Your task to perform on an android device: move a message to another label in the gmail app Image 0: 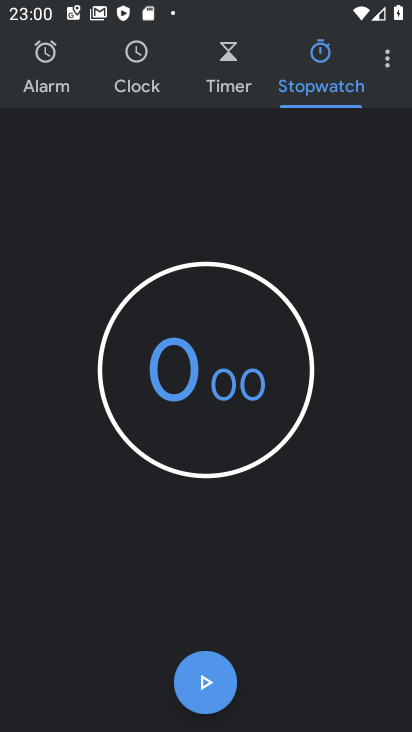
Step 0: press home button
Your task to perform on an android device: move a message to another label in the gmail app Image 1: 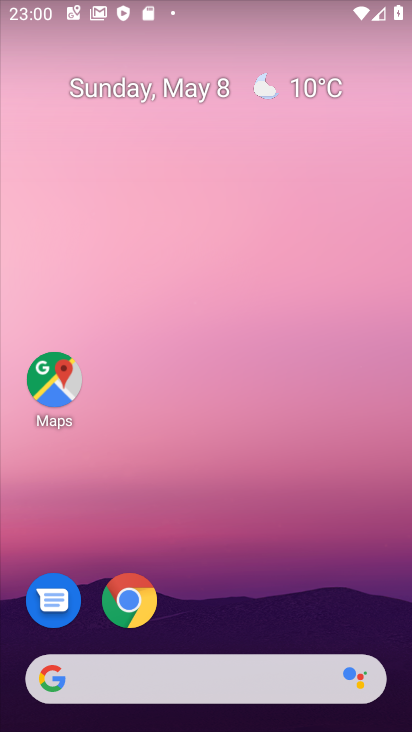
Step 1: drag from (198, 613) to (236, 159)
Your task to perform on an android device: move a message to another label in the gmail app Image 2: 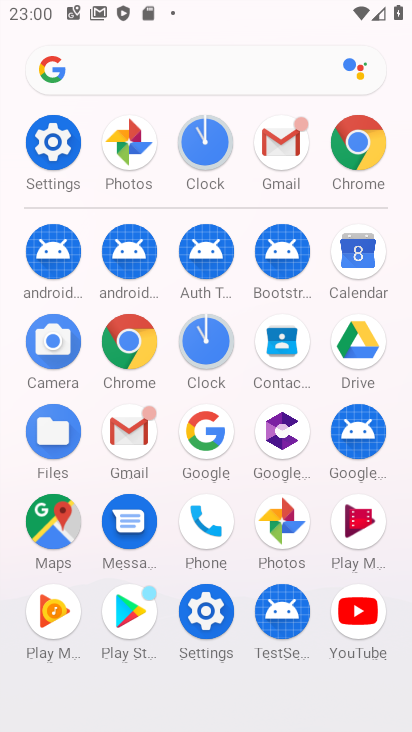
Step 2: click (302, 155)
Your task to perform on an android device: move a message to another label in the gmail app Image 3: 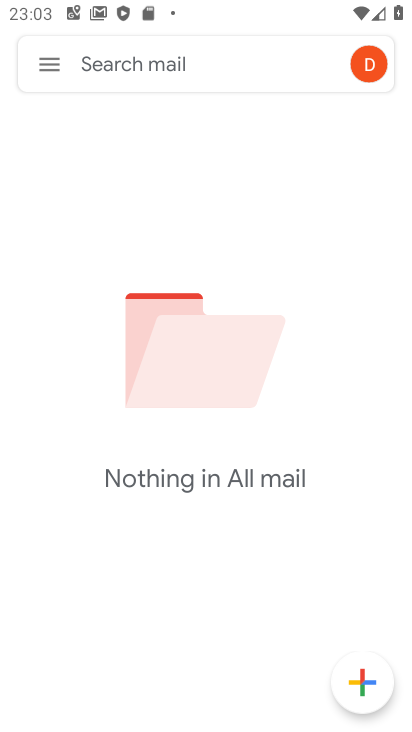
Step 3: task complete